Your task to perform on an android device: What is the news today? Image 0: 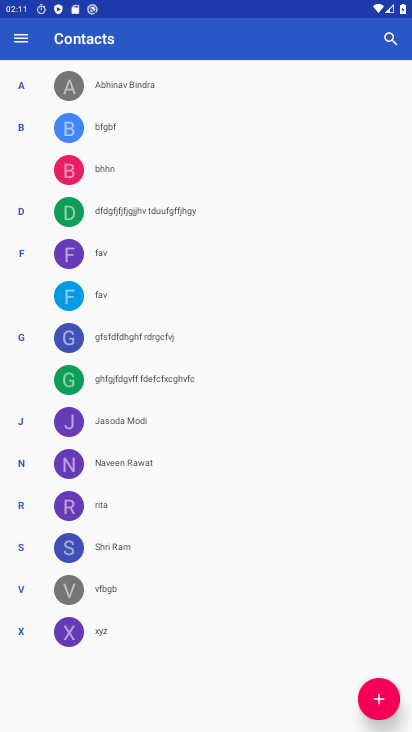
Step 0: press home button
Your task to perform on an android device: What is the news today? Image 1: 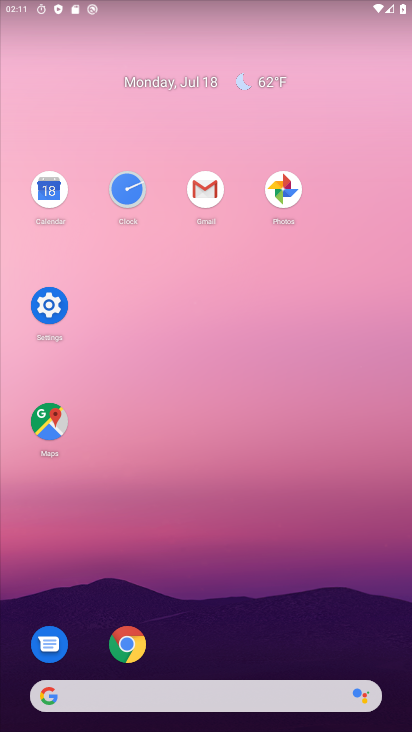
Step 1: drag from (220, 630) to (232, 284)
Your task to perform on an android device: What is the news today? Image 2: 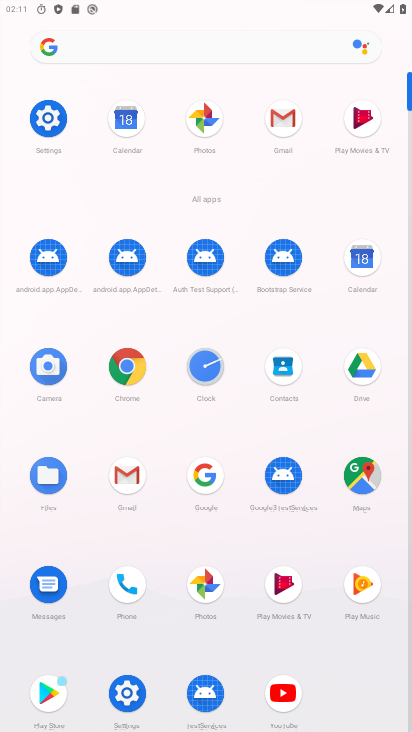
Step 2: drag from (199, 468) to (149, 304)
Your task to perform on an android device: What is the news today? Image 3: 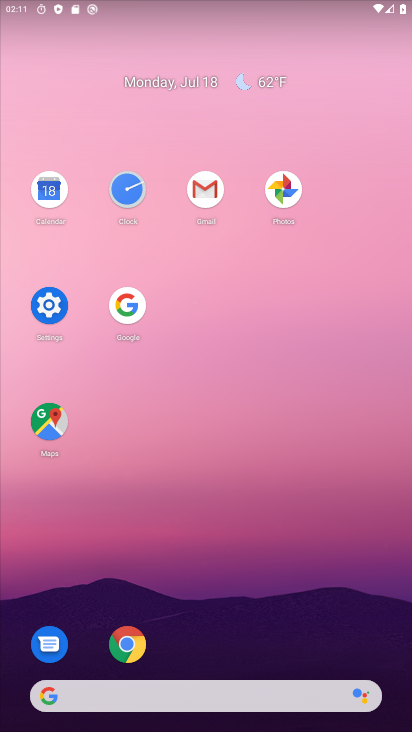
Step 3: click (120, 292)
Your task to perform on an android device: What is the news today? Image 4: 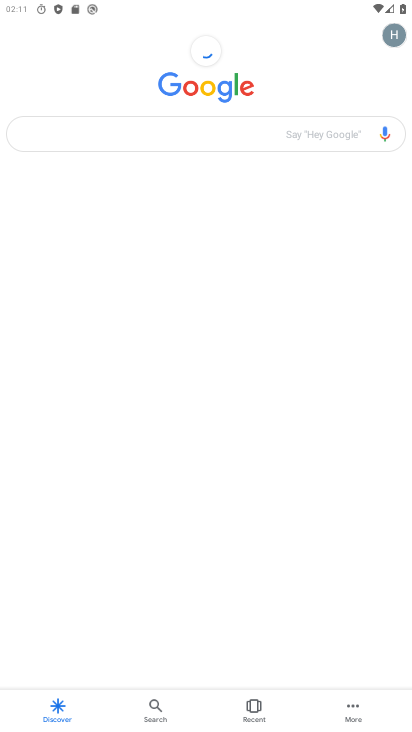
Step 4: click (172, 138)
Your task to perform on an android device: What is the news today? Image 5: 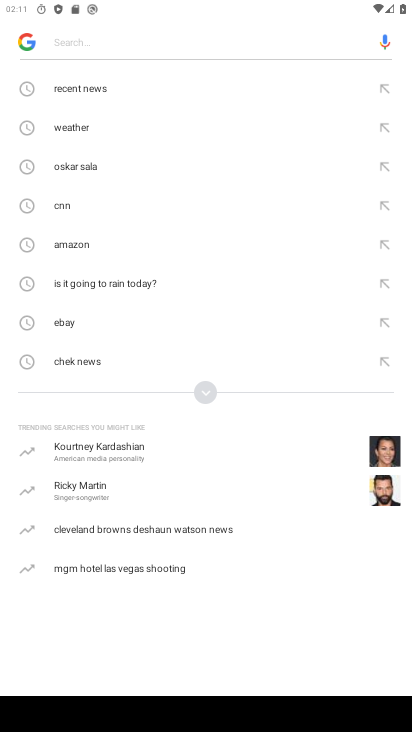
Step 5: type "today news"
Your task to perform on an android device: What is the news today? Image 6: 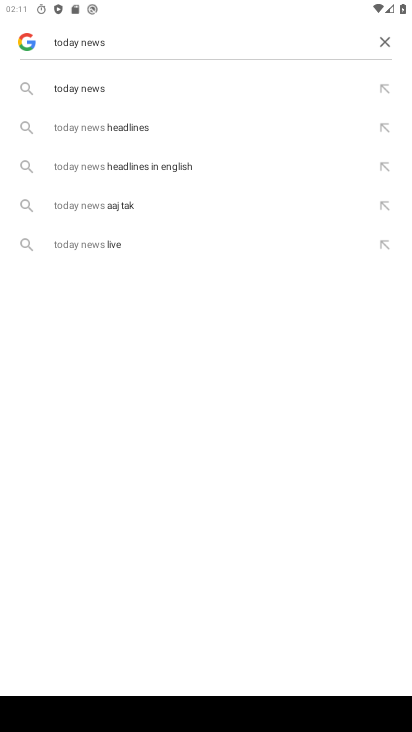
Step 6: click (88, 77)
Your task to perform on an android device: What is the news today? Image 7: 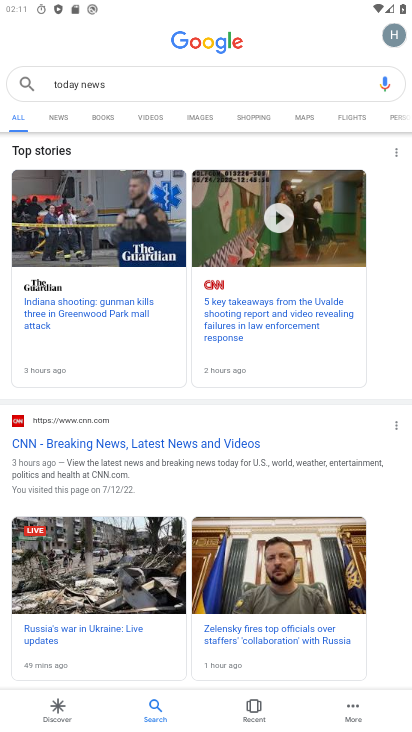
Step 7: task complete